Your task to perform on an android device: delete the emails in spam in the gmail app Image 0: 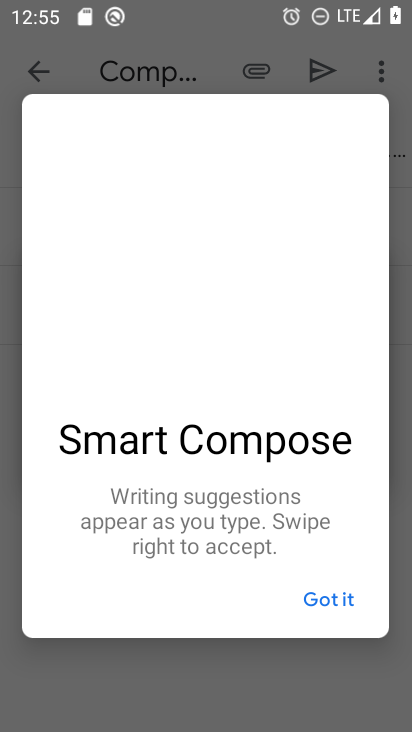
Step 0: press home button
Your task to perform on an android device: delete the emails in spam in the gmail app Image 1: 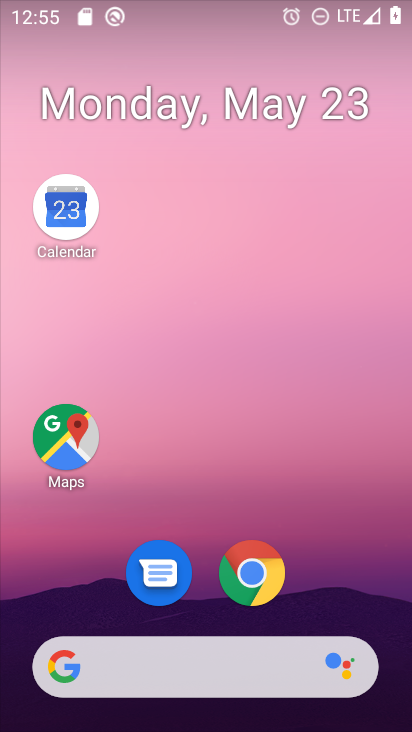
Step 1: drag from (314, 616) to (319, 145)
Your task to perform on an android device: delete the emails in spam in the gmail app Image 2: 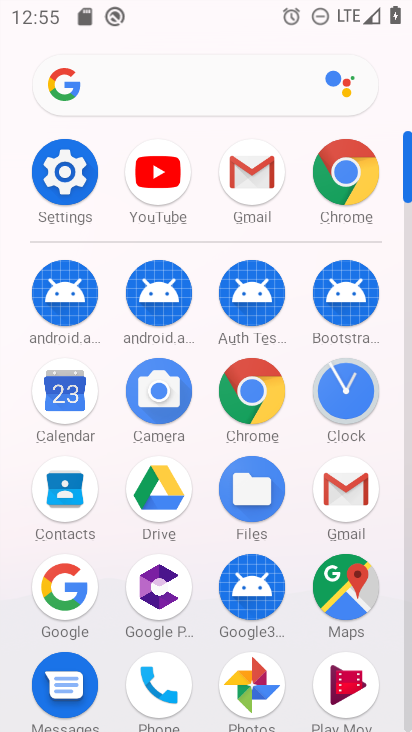
Step 2: click (349, 497)
Your task to perform on an android device: delete the emails in spam in the gmail app Image 3: 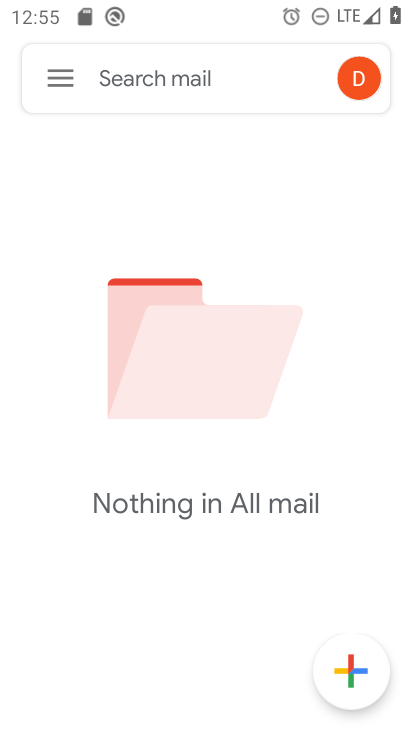
Step 3: click (61, 75)
Your task to perform on an android device: delete the emails in spam in the gmail app Image 4: 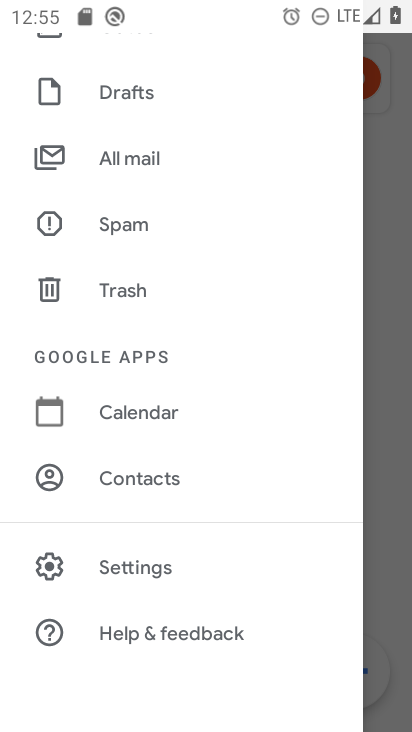
Step 4: click (169, 215)
Your task to perform on an android device: delete the emails in spam in the gmail app Image 5: 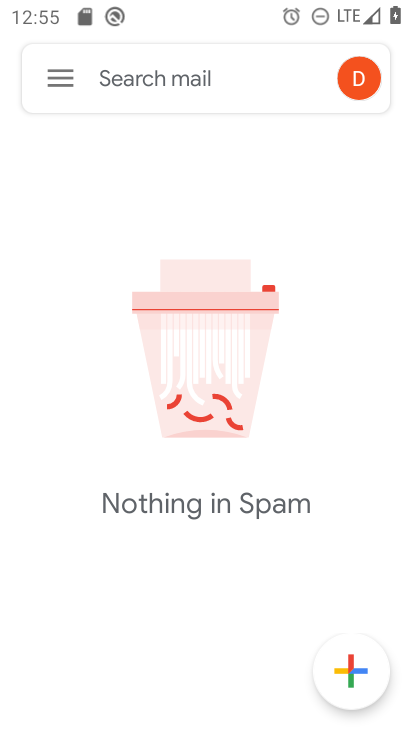
Step 5: task complete